Your task to perform on an android device: What is the news today? Image 0: 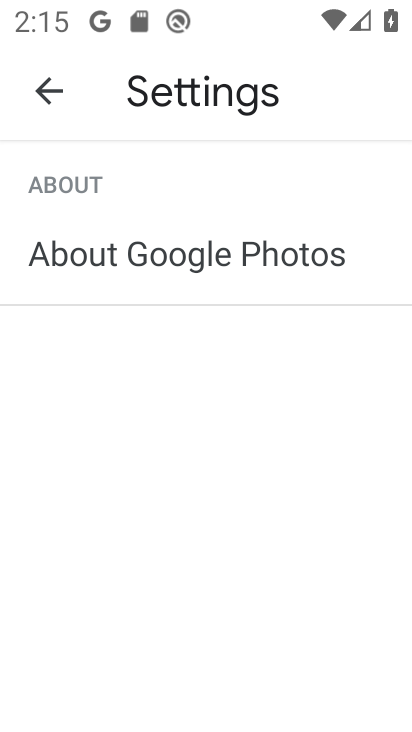
Step 0: press home button
Your task to perform on an android device: What is the news today? Image 1: 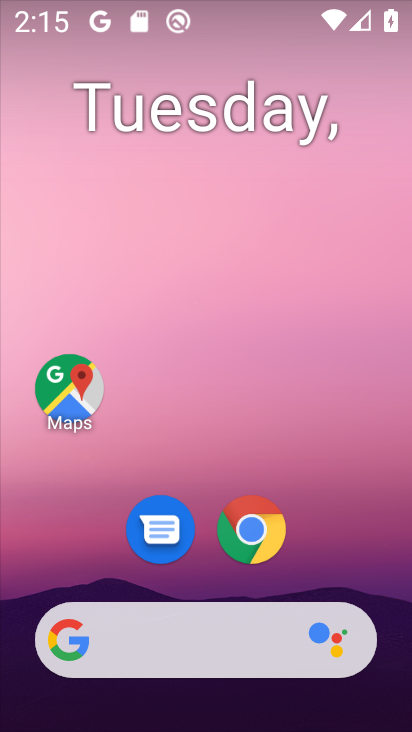
Step 1: task complete